Your task to perform on an android device: Open Wikipedia Image 0: 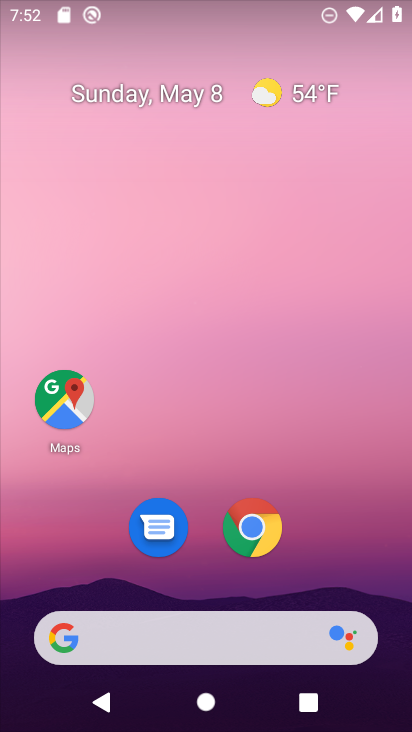
Step 0: drag from (343, 539) to (322, 69)
Your task to perform on an android device: Open Wikipedia Image 1: 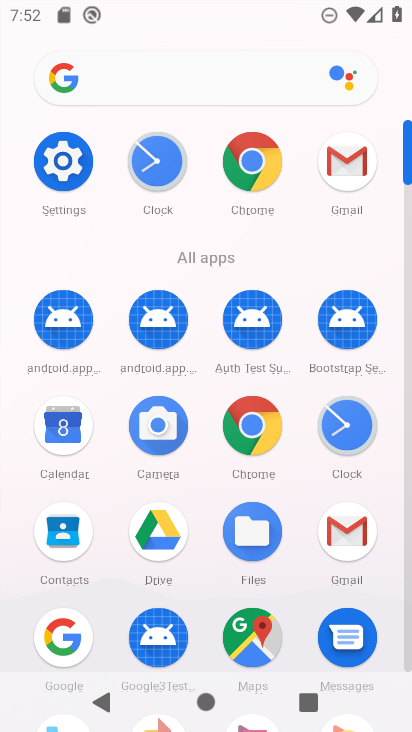
Step 1: click (245, 435)
Your task to perform on an android device: Open Wikipedia Image 2: 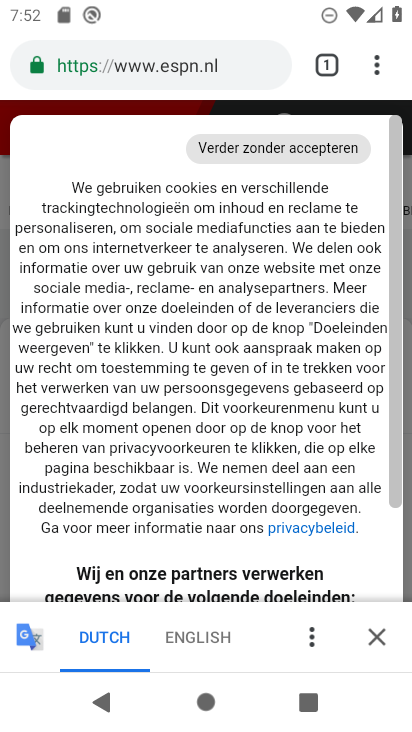
Step 2: click (210, 71)
Your task to perform on an android device: Open Wikipedia Image 3: 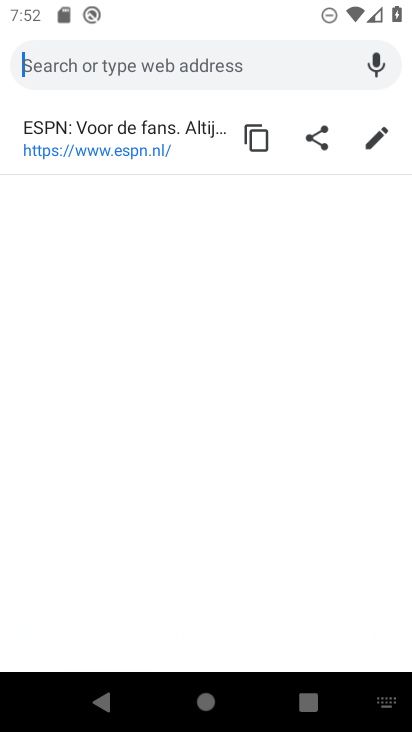
Step 3: type "wikipedia"
Your task to perform on an android device: Open Wikipedia Image 4: 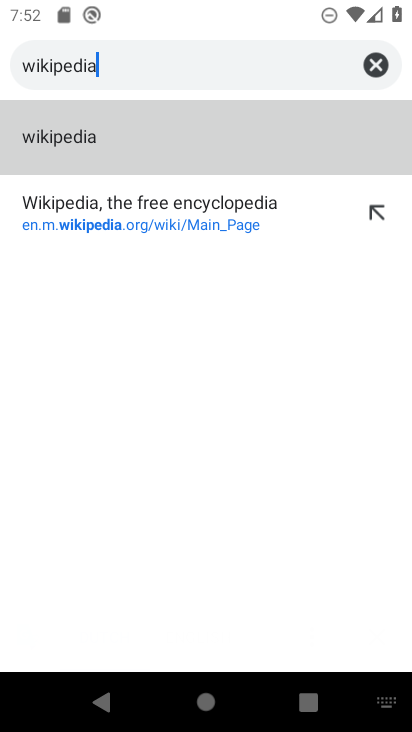
Step 4: click (71, 152)
Your task to perform on an android device: Open Wikipedia Image 5: 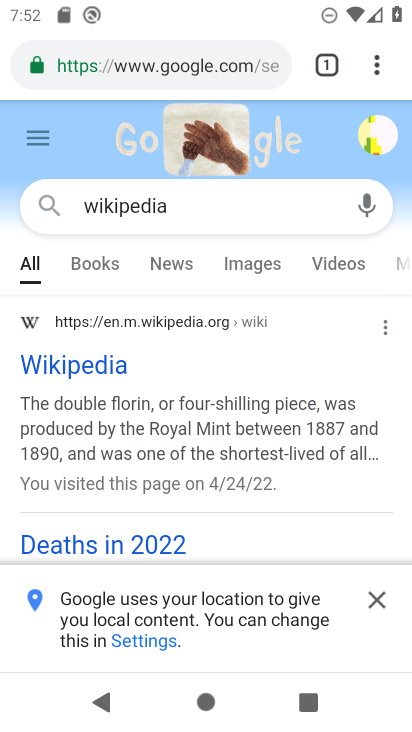
Step 5: click (107, 366)
Your task to perform on an android device: Open Wikipedia Image 6: 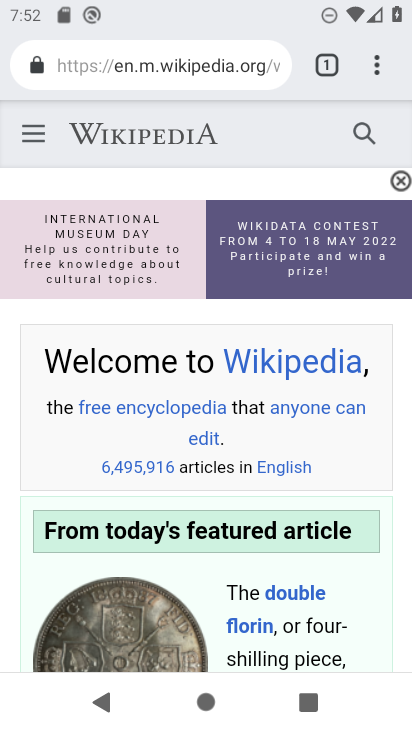
Step 6: task complete